Your task to perform on an android device: open app "PlayWell" (install if not already installed) and enter user name: "metric@gmail.com" and password: "bumblebee" Image 0: 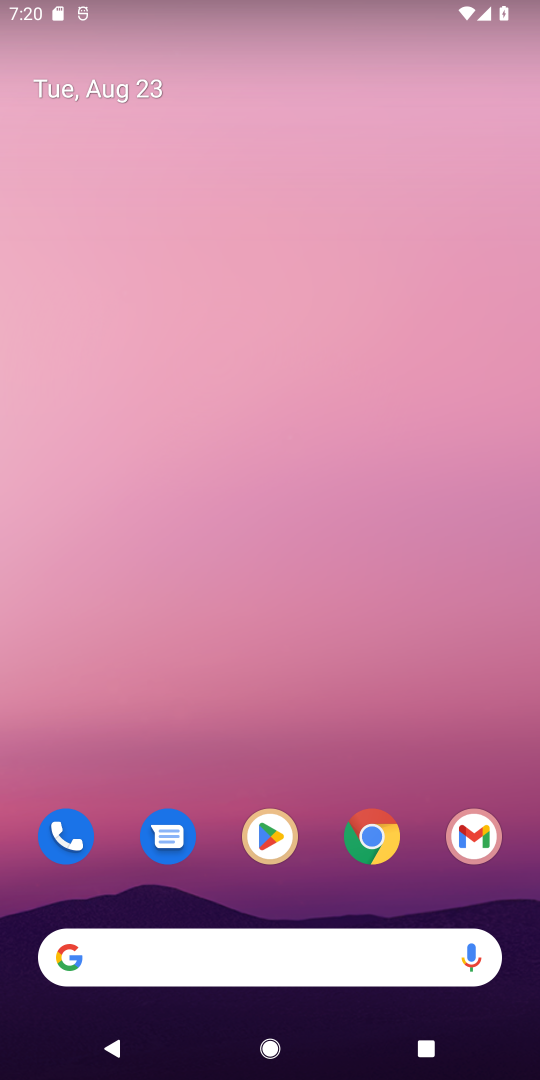
Step 0: click (279, 834)
Your task to perform on an android device: open app "PlayWell" (install if not already installed) and enter user name: "metric@gmail.com" and password: "bumblebee" Image 1: 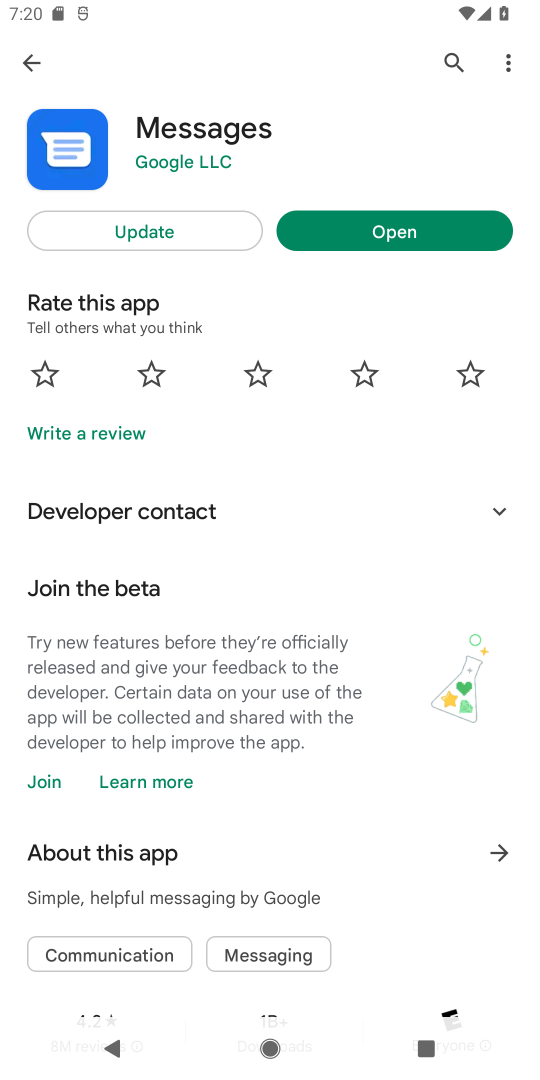
Step 1: click (449, 56)
Your task to perform on an android device: open app "PlayWell" (install if not already installed) and enter user name: "metric@gmail.com" and password: "bumblebee" Image 2: 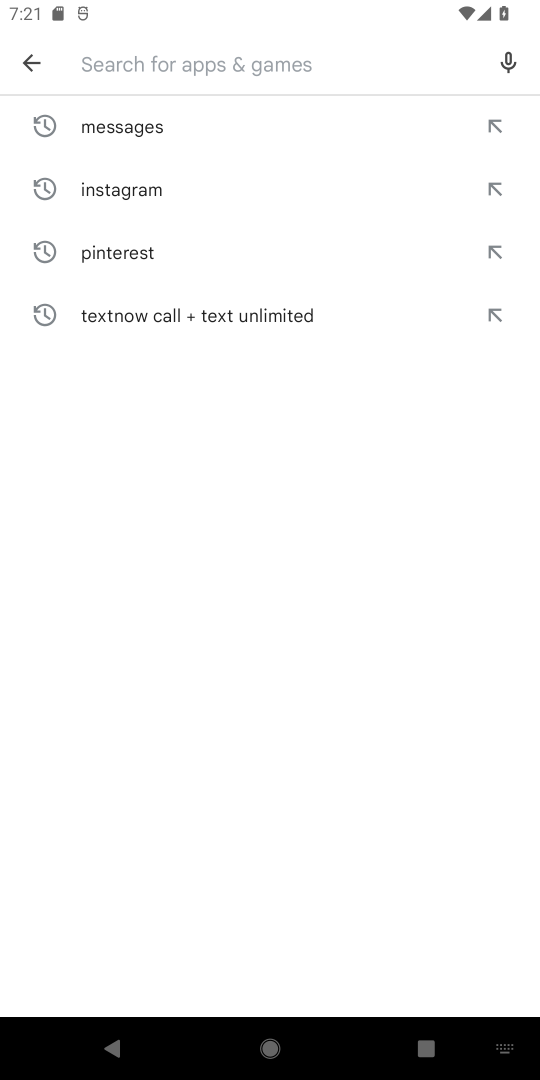
Step 2: type "PlayWell"
Your task to perform on an android device: open app "PlayWell" (install if not already installed) and enter user name: "metric@gmail.com" and password: "bumblebee" Image 3: 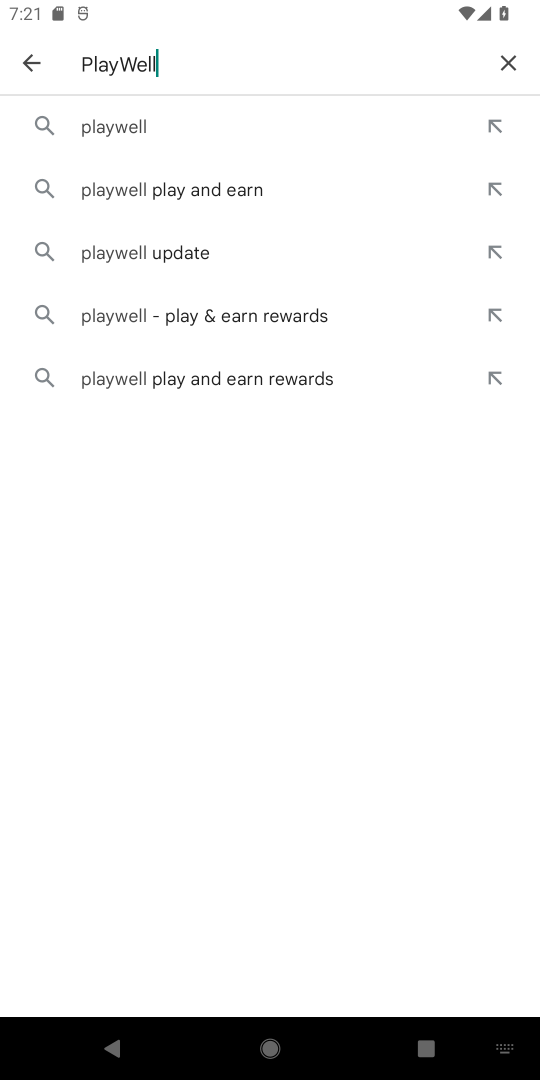
Step 3: click (131, 130)
Your task to perform on an android device: open app "PlayWell" (install if not already installed) and enter user name: "metric@gmail.com" and password: "bumblebee" Image 4: 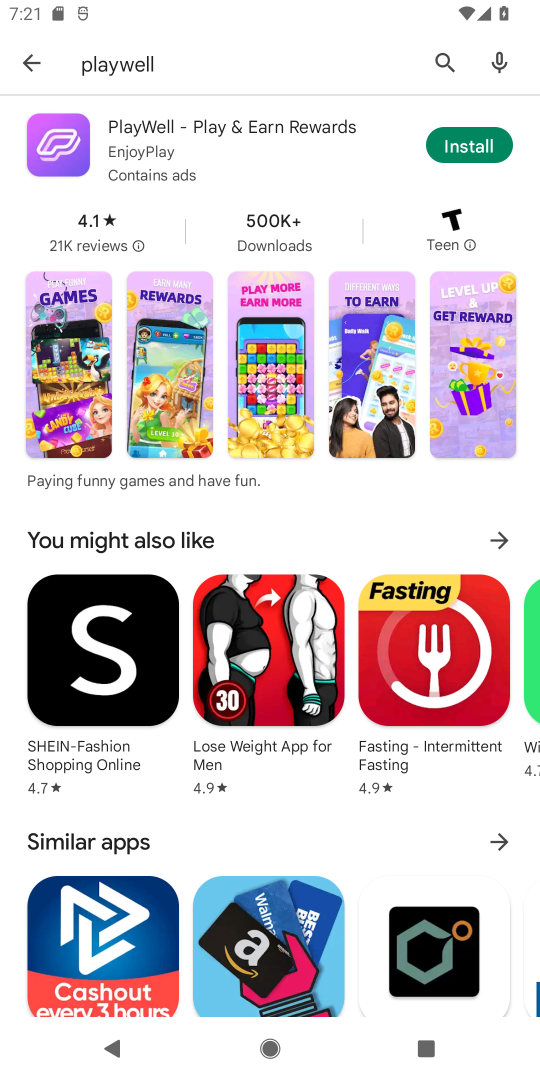
Step 4: click (452, 152)
Your task to perform on an android device: open app "PlayWell" (install if not already installed) and enter user name: "metric@gmail.com" and password: "bumblebee" Image 5: 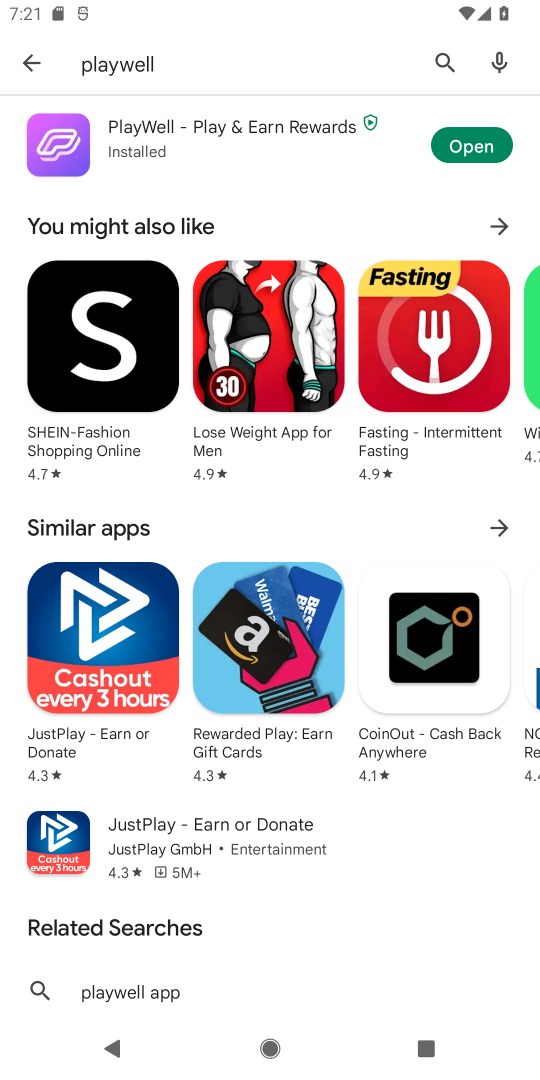
Step 5: click (489, 141)
Your task to perform on an android device: open app "PlayWell" (install if not already installed) and enter user name: "metric@gmail.com" and password: "bumblebee" Image 6: 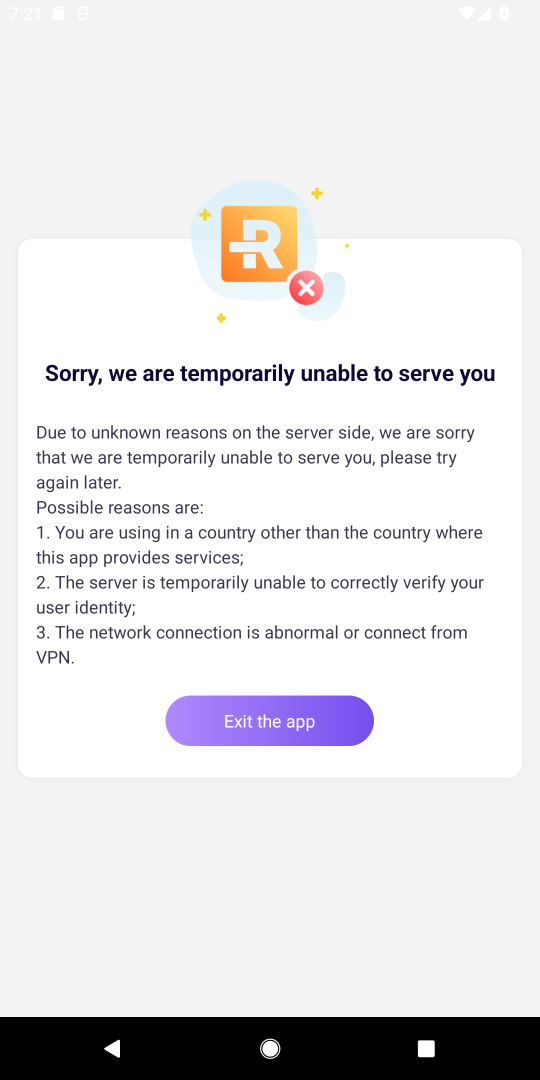
Step 6: task complete